Your task to perform on an android device: Open Android settings Image 0: 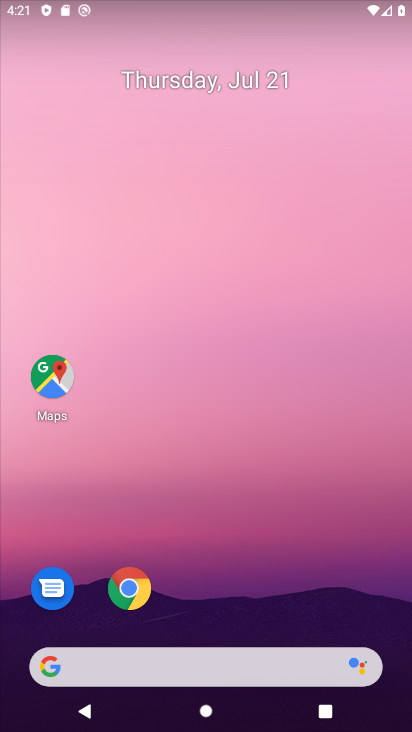
Step 0: drag from (322, 479) to (305, 193)
Your task to perform on an android device: Open Android settings Image 1: 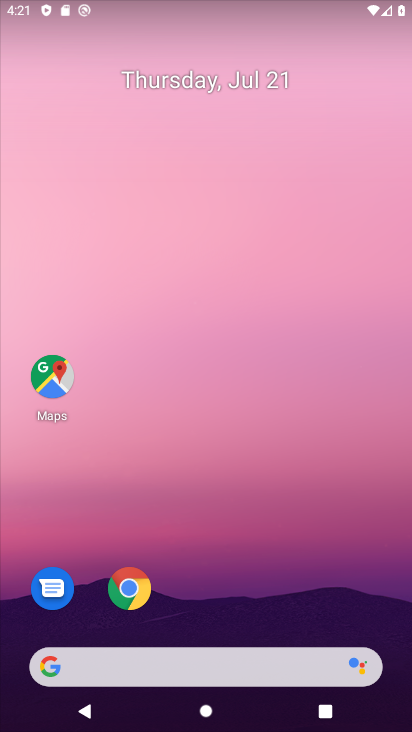
Step 1: drag from (279, 512) to (302, 139)
Your task to perform on an android device: Open Android settings Image 2: 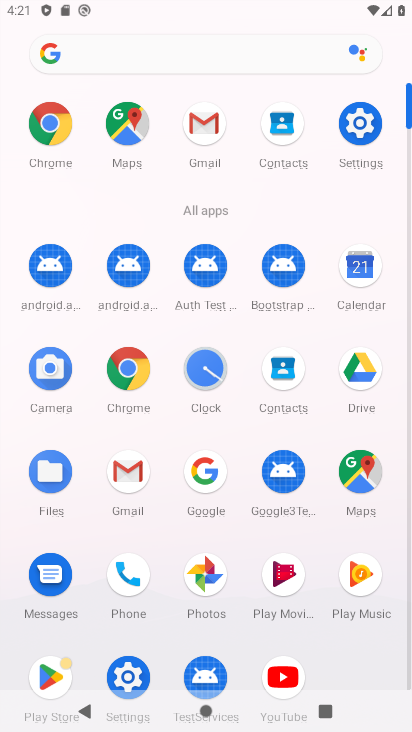
Step 2: click (359, 126)
Your task to perform on an android device: Open Android settings Image 3: 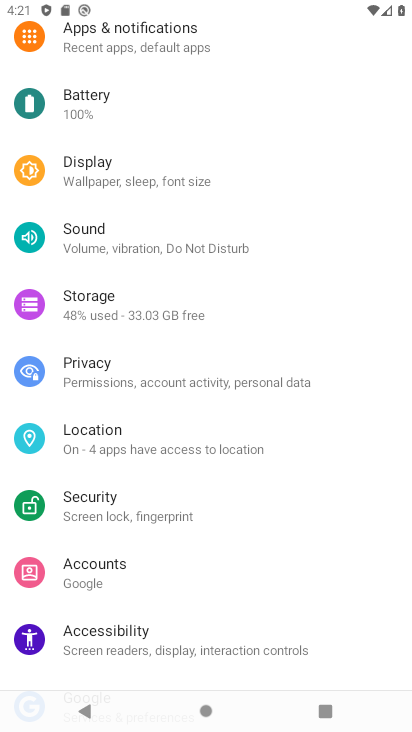
Step 3: task complete